Your task to perform on an android device: Go to privacy settings Image 0: 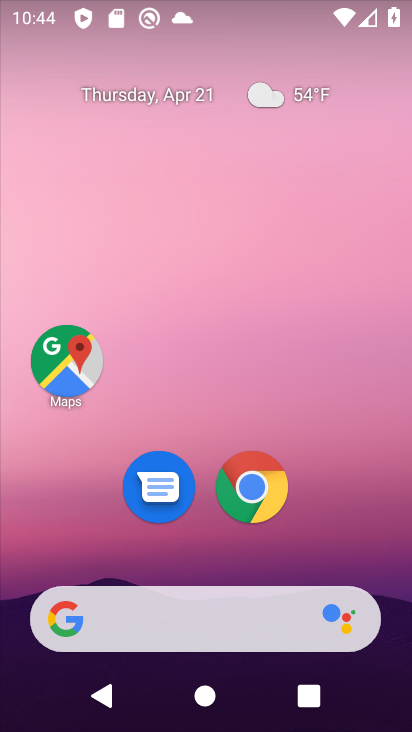
Step 0: drag from (362, 540) to (352, 227)
Your task to perform on an android device: Go to privacy settings Image 1: 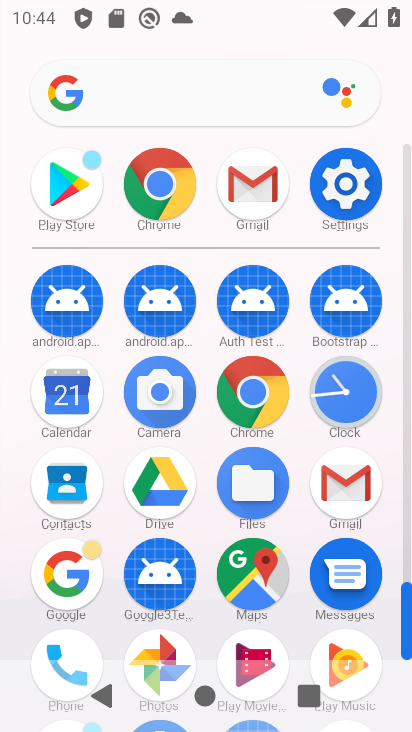
Step 1: click (352, 207)
Your task to perform on an android device: Go to privacy settings Image 2: 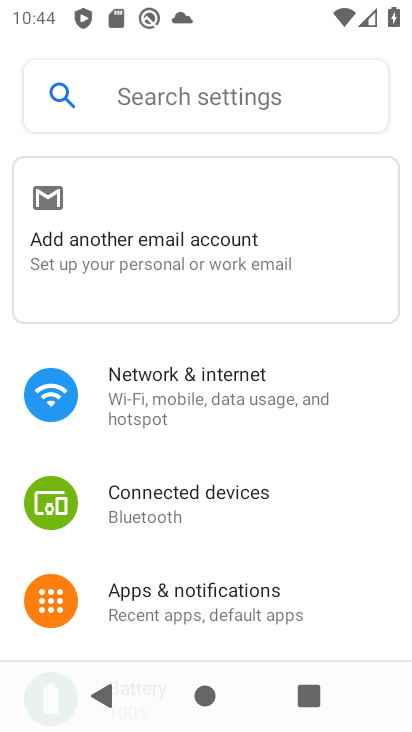
Step 2: drag from (307, 543) to (269, 273)
Your task to perform on an android device: Go to privacy settings Image 3: 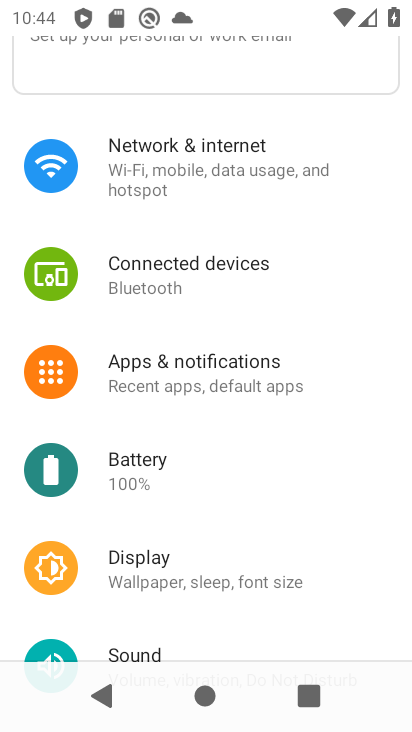
Step 3: drag from (273, 485) to (286, 225)
Your task to perform on an android device: Go to privacy settings Image 4: 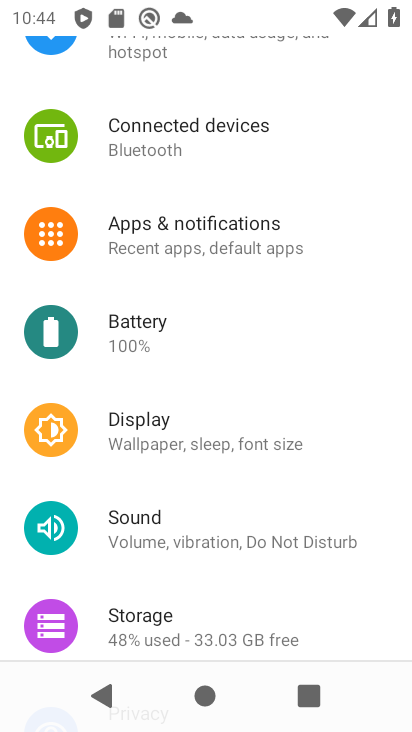
Step 4: drag from (209, 484) to (270, 190)
Your task to perform on an android device: Go to privacy settings Image 5: 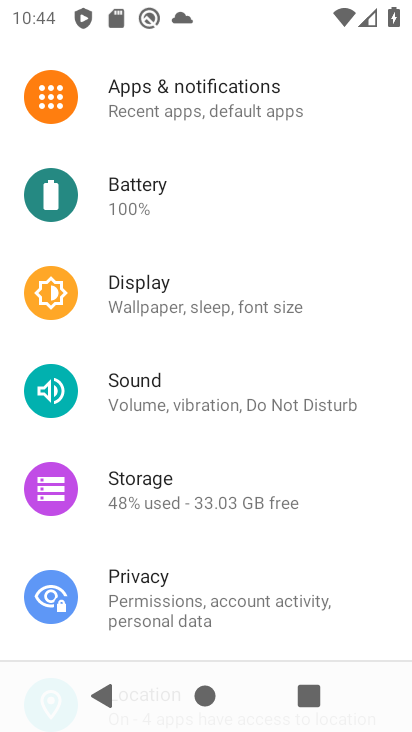
Step 5: click (182, 592)
Your task to perform on an android device: Go to privacy settings Image 6: 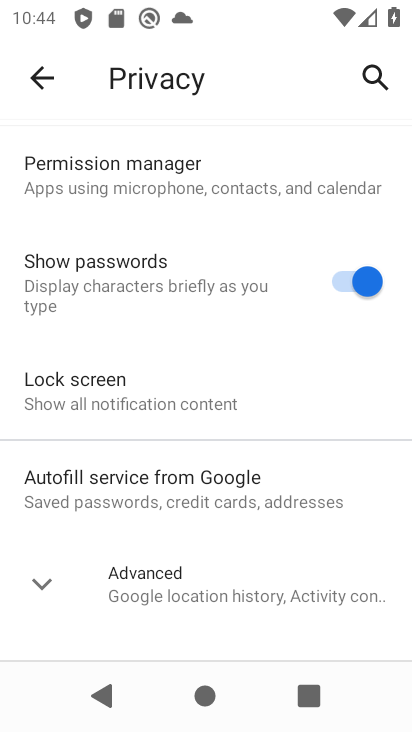
Step 6: task complete